Your task to perform on an android device: turn pop-ups on in chrome Image 0: 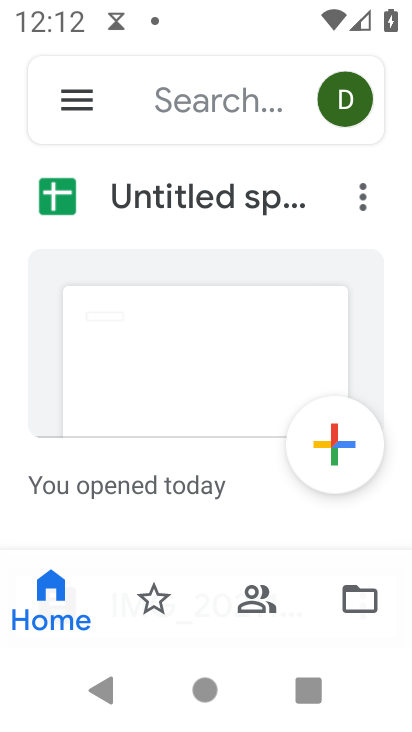
Step 0: press home button
Your task to perform on an android device: turn pop-ups on in chrome Image 1: 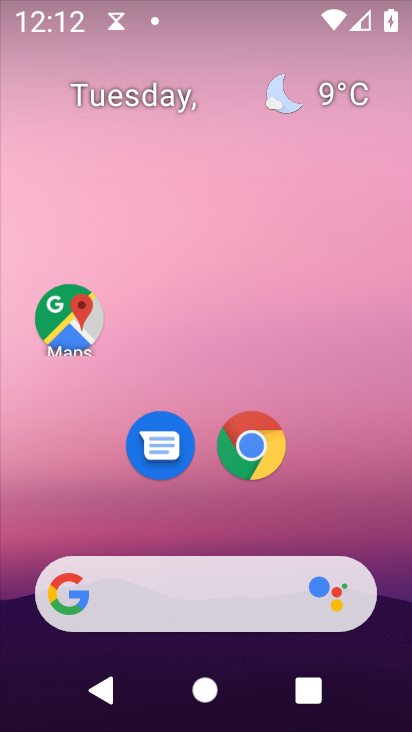
Step 1: drag from (283, 632) to (267, 153)
Your task to perform on an android device: turn pop-ups on in chrome Image 2: 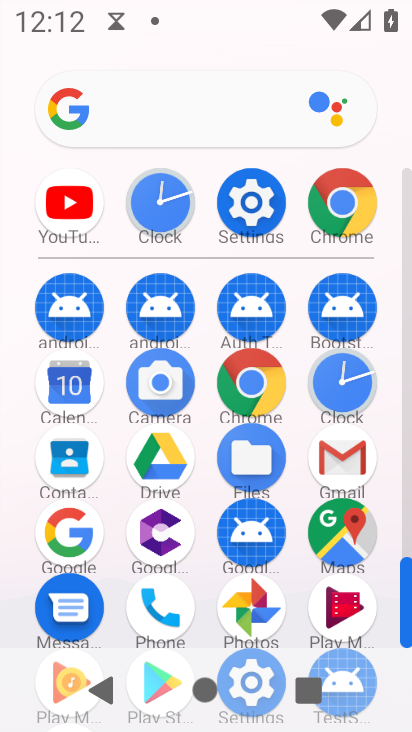
Step 2: click (234, 377)
Your task to perform on an android device: turn pop-ups on in chrome Image 3: 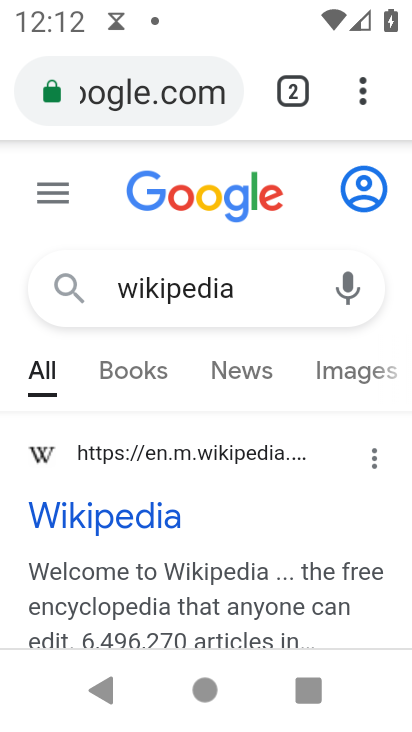
Step 3: drag from (342, 76) to (258, 472)
Your task to perform on an android device: turn pop-ups on in chrome Image 4: 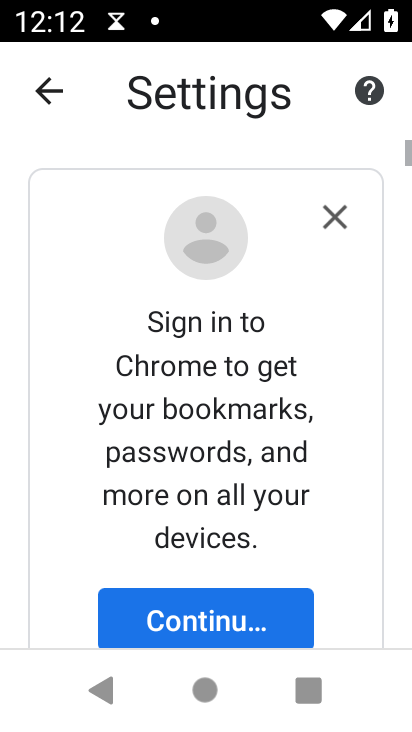
Step 4: drag from (301, 585) to (273, 84)
Your task to perform on an android device: turn pop-ups on in chrome Image 5: 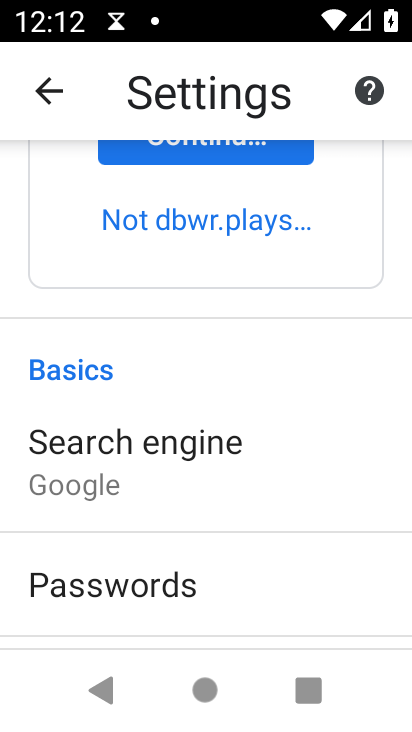
Step 5: drag from (286, 641) to (296, 170)
Your task to perform on an android device: turn pop-ups on in chrome Image 6: 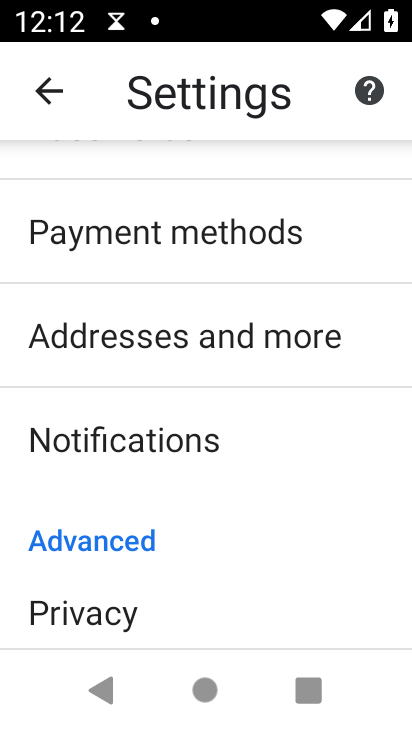
Step 6: drag from (270, 628) to (292, 241)
Your task to perform on an android device: turn pop-ups on in chrome Image 7: 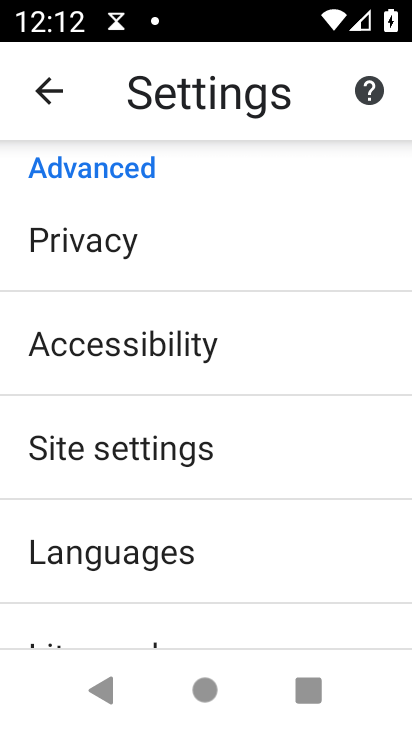
Step 7: click (184, 446)
Your task to perform on an android device: turn pop-ups on in chrome Image 8: 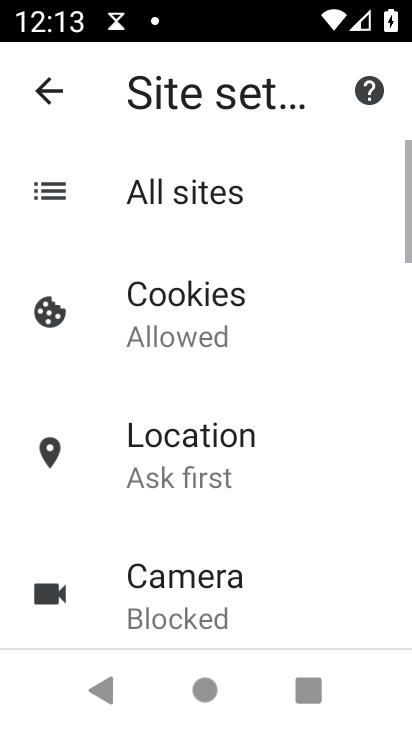
Step 8: drag from (237, 550) to (253, 105)
Your task to perform on an android device: turn pop-ups on in chrome Image 9: 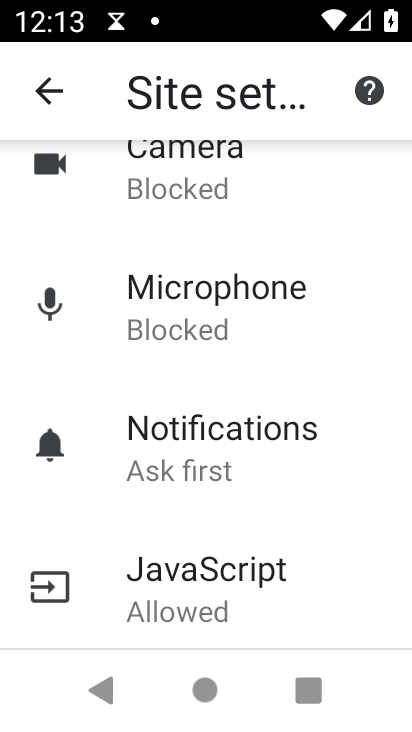
Step 9: drag from (287, 586) to (302, 148)
Your task to perform on an android device: turn pop-ups on in chrome Image 10: 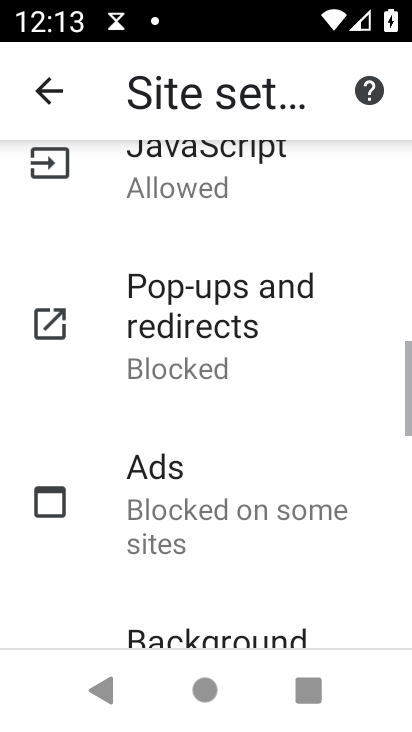
Step 10: click (246, 309)
Your task to perform on an android device: turn pop-ups on in chrome Image 11: 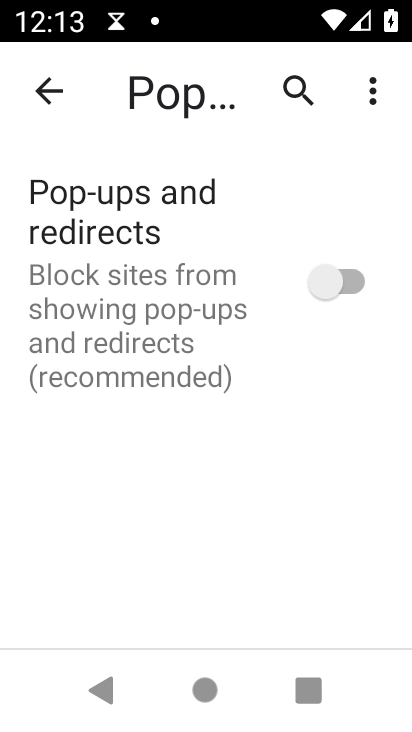
Step 11: click (351, 280)
Your task to perform on an android device: turn pop-ups on in chrome Image 12: 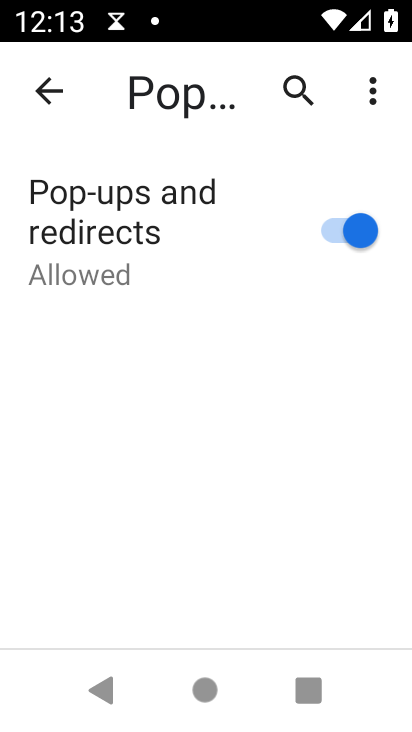
Step 12: task complete